Your task to perform on an android device: Turn off the flashlight Image 0: 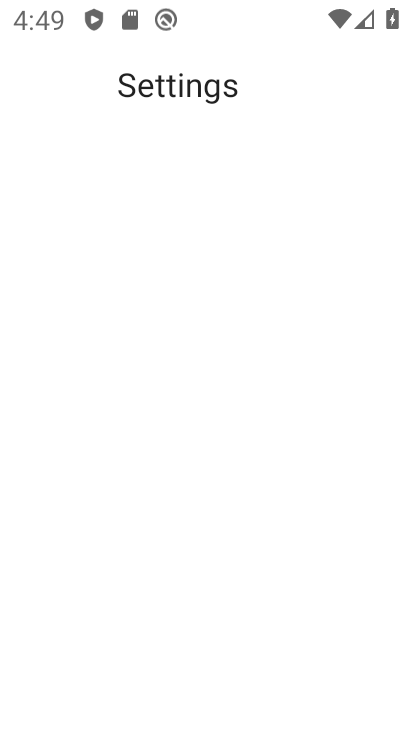
Step 0: drag from (339, 582) to (393, 484)
Your task to perform on an android device: Turn off the flashlight Image 1: 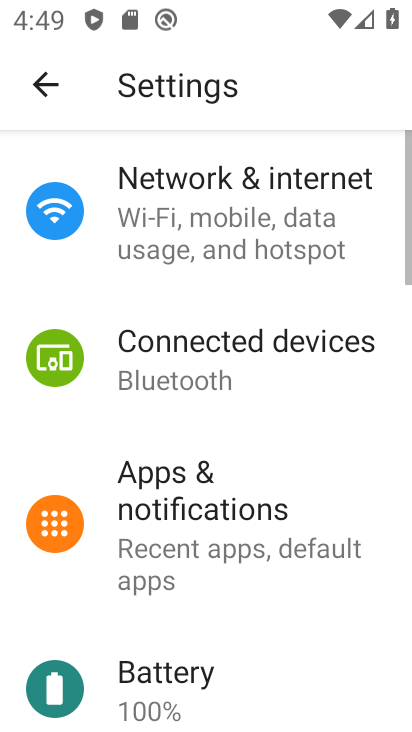
Step 1: task complete